Your task to perform on an android device: Is it going to rain today? Image 0: 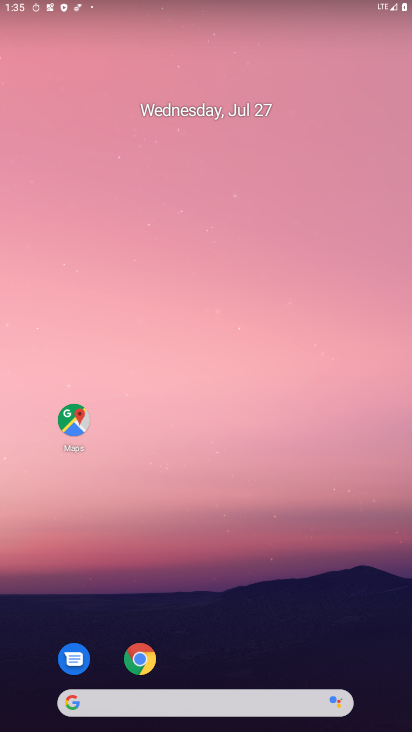
Step 0: drag from (302, 568) to (361, 104)
Your task to perform on an android device: Is it going to rain today? Image 1: 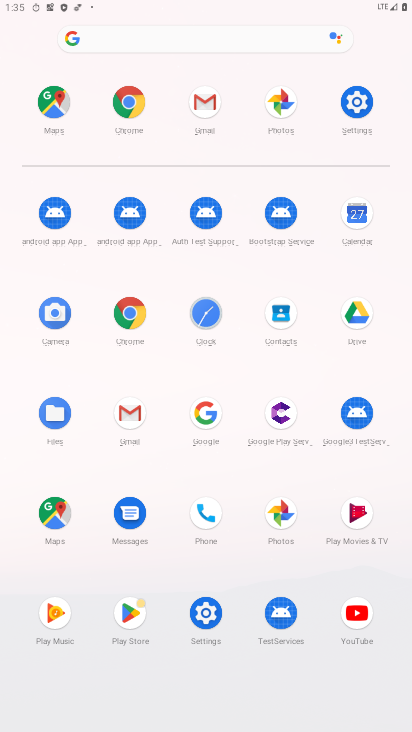
Step 1: click (130, 294)
Your task to perform on an android device: Is it going to rain today? Image 2: 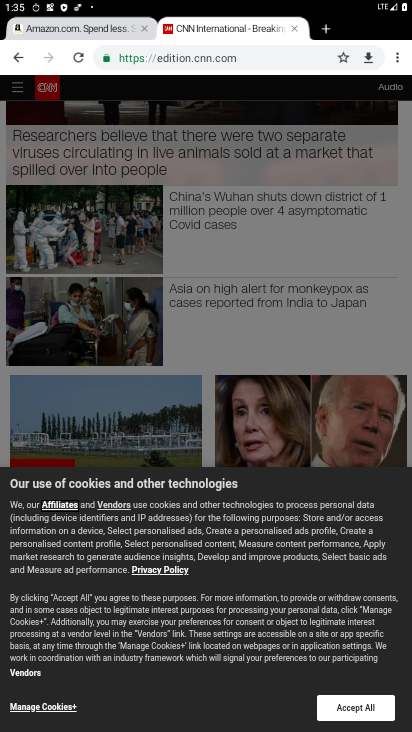
Step 2: click (180, 52)
Your task to perform on an android device: Is it going to rain today? Image 3: 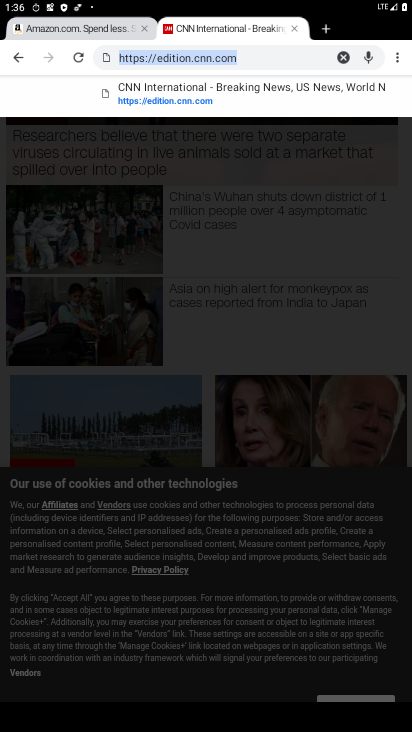
Step 3: type "Is it going to rain today?"
Your task to perform on an android device: Is it going to rain today? Image 4: 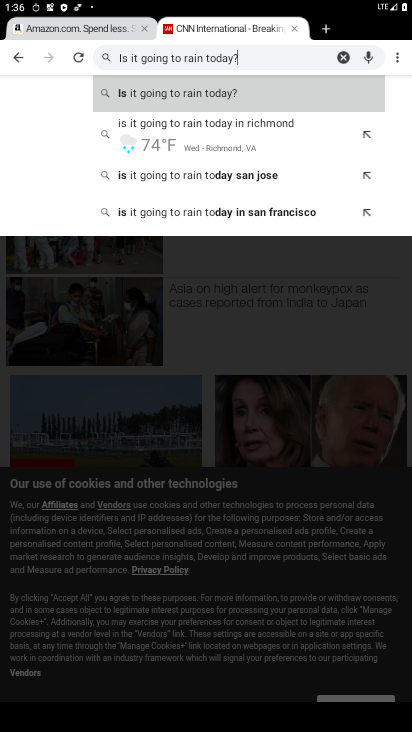
Step 4: click (196, 84)
Your task to perform on an android device: Is it going to rain today? Image 5: 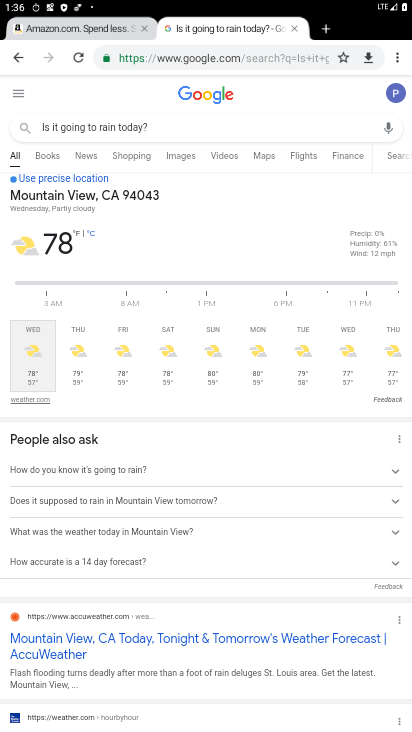
Step 5: task complete